Your task to perform on an android device: Search for pizza restaurants on Maps Image 0: 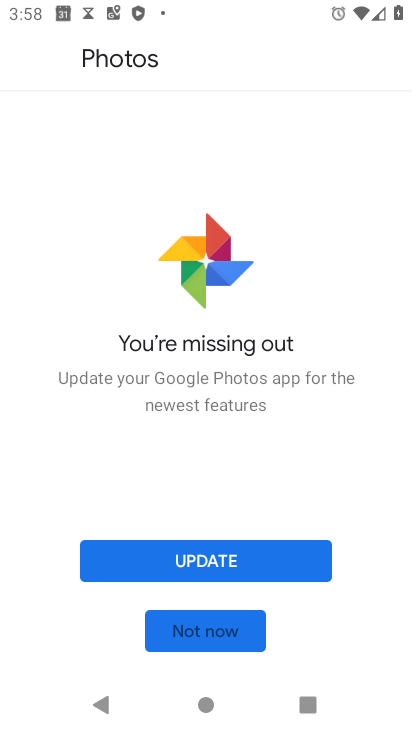
Step 0: click (209, 554)
Your task to perform on an android device: Search for pizza restaurants on Maps Image 1: 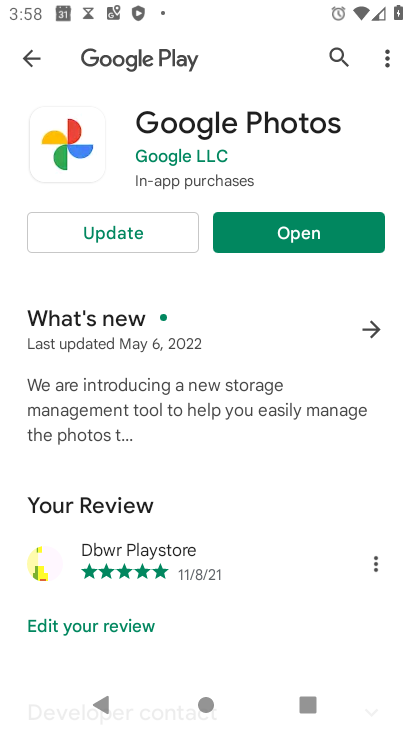
Step 1: click (137, 238)
Your task to perform on an android device: Search for pizza restaurants on Maps Image 2: 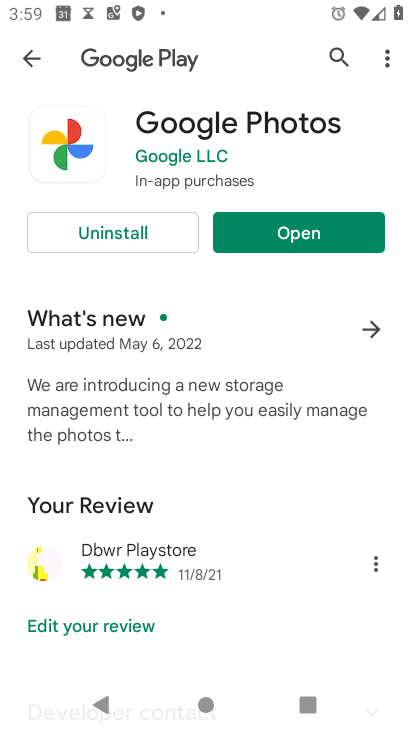
Step 2: click (279, 238)
Your task to perform on an android device: Search for pizza restaurants on Maps Image 3: 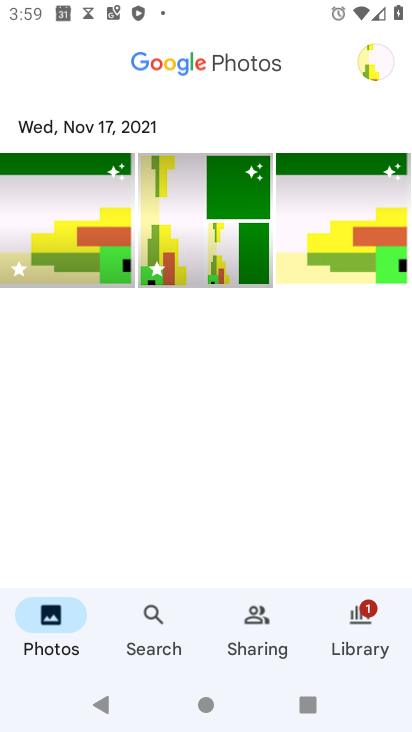
Step 3: task complete